Your task to perform on an android device: Open sound settings Image 0: 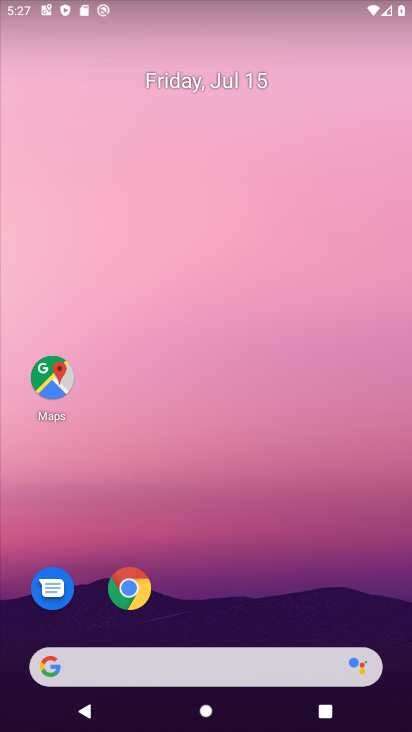
Step 0: drag from (237, 633) to (220, 120)
Your task to perform on an android device: Open sound settings Image 1: 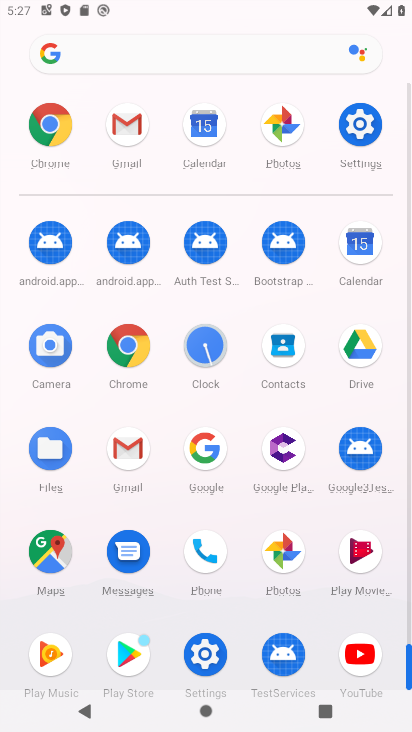
Step 1: click (341, 112)
Your task to perform on an android device: Open sound settings Image 2: 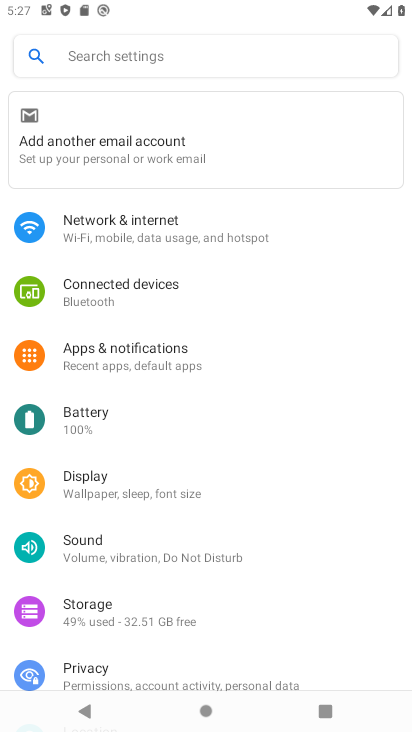
Step 2: click (136, 549)
Your task to perform on an android device: Open sound settings Image 3: 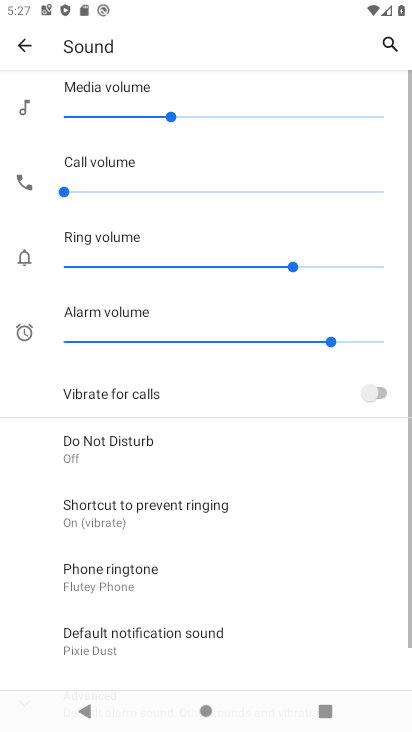
Step 3: task complete